Your task to perform on an android device: turn on location history Image 0: 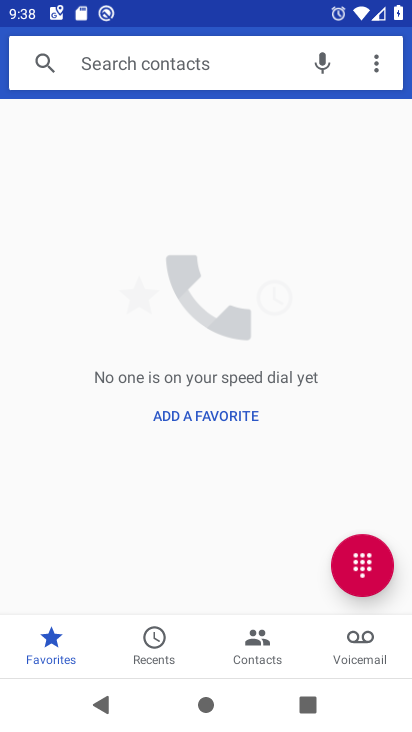
Step 0: press home button
Your task to perform on an android device: turn on location history Image 1: 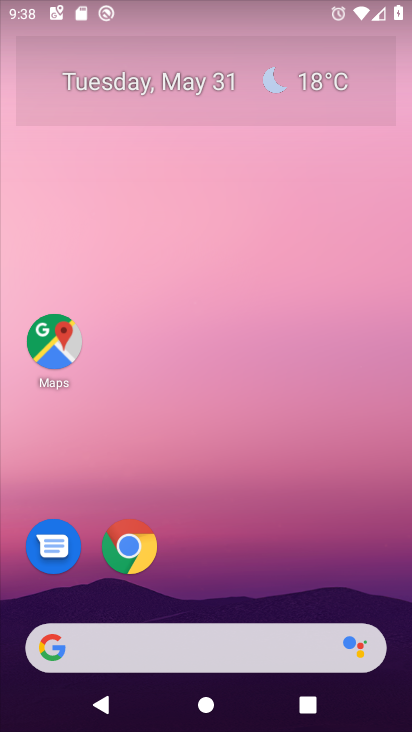
Step 1: drag from (266, 596) to (284, 195)
Your task to perform on an android device: turn on location history Image 2: 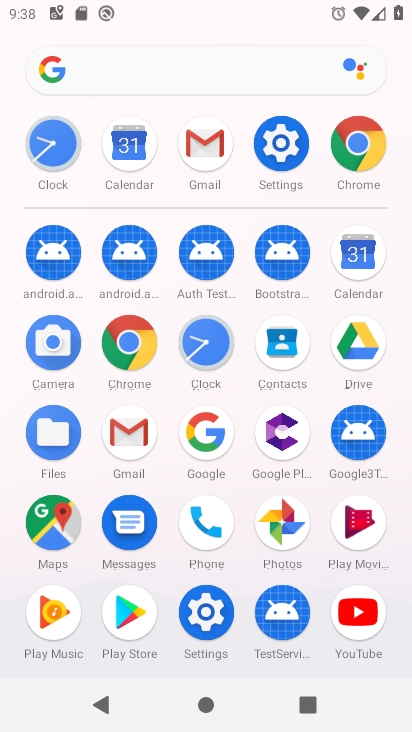
Step 2: click (284, 164)
Your task to perform on an android device: turn on location history Image 3: 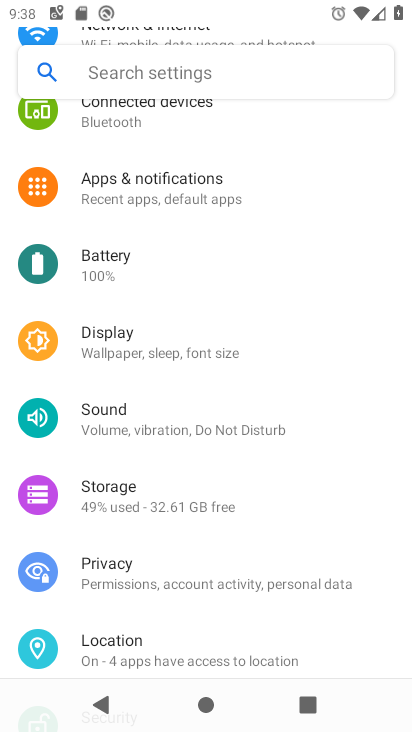
Step 3: click (146, 650)
Your task to perform on an android device: turn on location history Image 4: 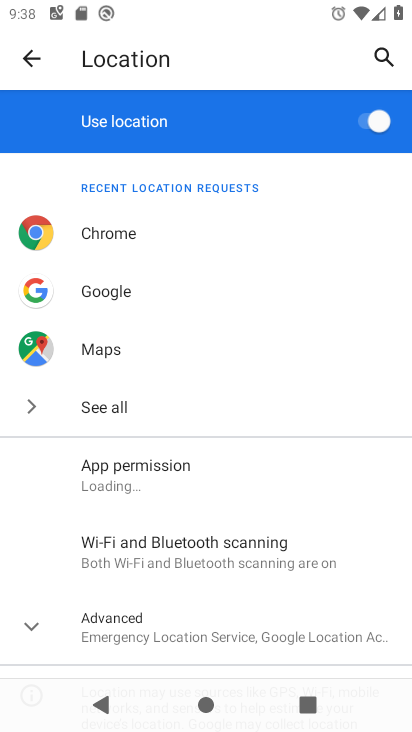
Step 4: drag from (234, 594) to (278, 360)
Your task to perform on an android device: turn on location history Image 5: 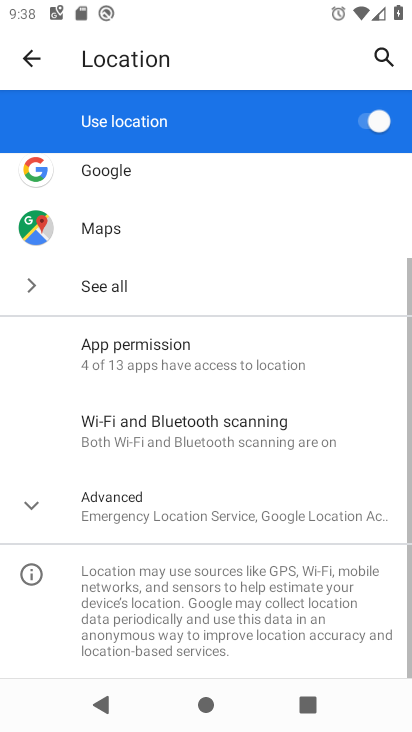
Step 5: click (136, 506)
Your task to perform on an android device: turn on location history Image 6: 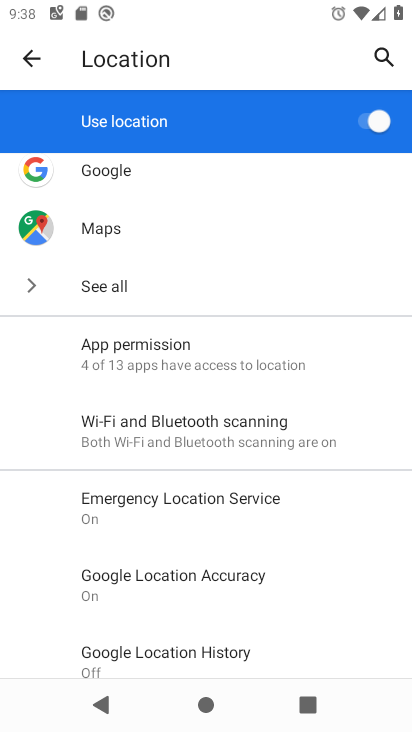
Step 6: click (211, 654)
Your task to perform on an android device: turn on location history Image 7: 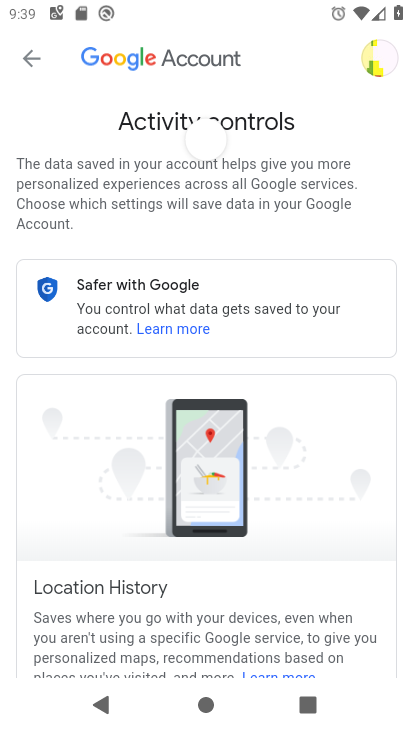
Step 7: task complete